Your task to perform on an android device: turn on improve location accuracy Image 0: 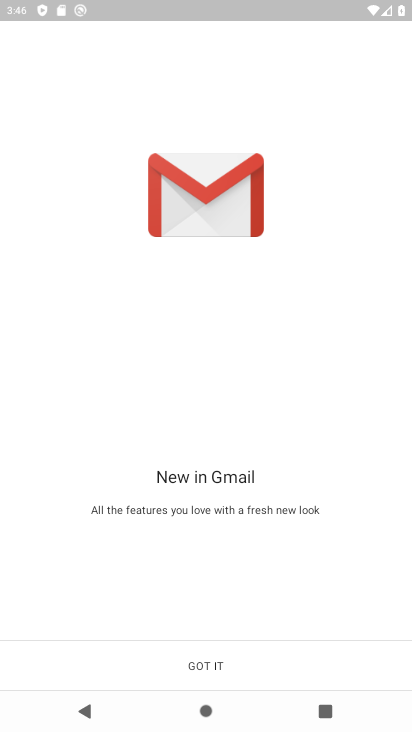
Step 0: drag from (211, 540) to (219, 350)
Your task to perform on an android device: turn on improve location accuracy Image 1: 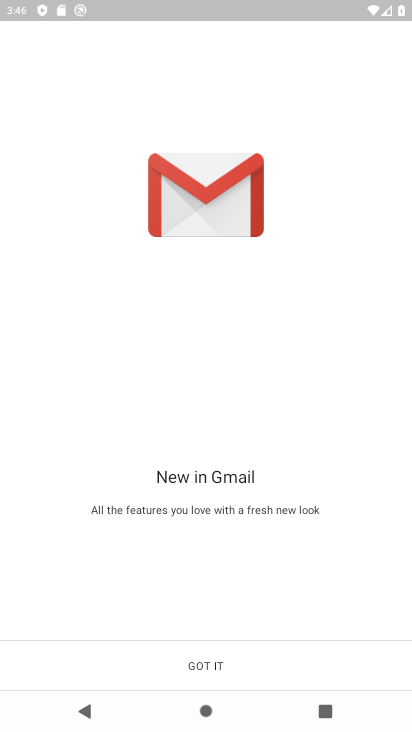
Step 1: click (210, 668)
Your task to perform on an android device: turn on improve location accuracy Image 2: 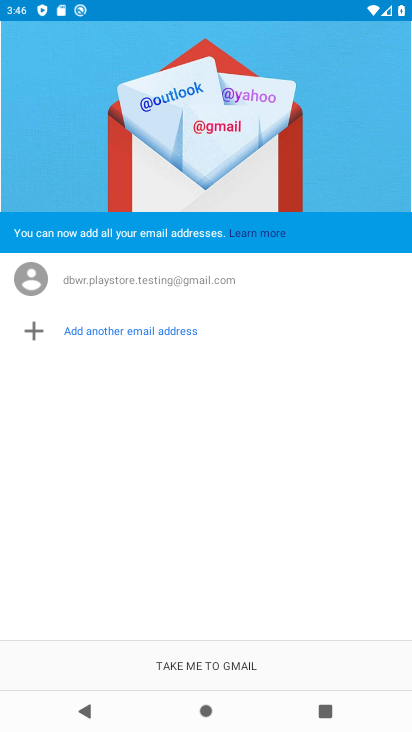
Step 2: press home button
Your task to perform on an android device: turn on improve location accuracy Image 3: 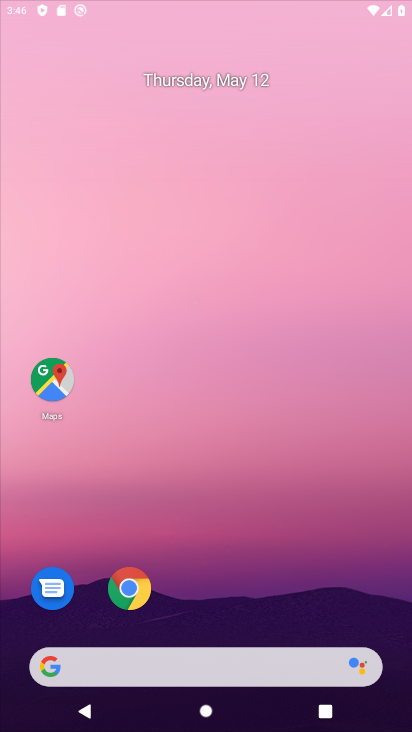
Step 3: drag from (156, 602) to (230, 196)
Your task to perform on an android device: turn on improve location accuracy Image 4: 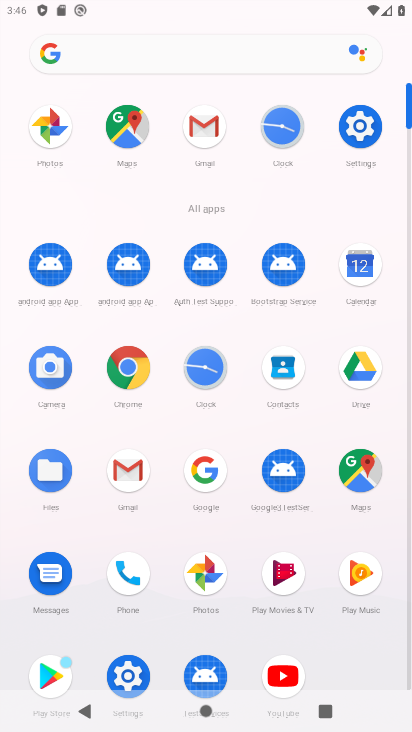
Step 4: click (356, 125)
Your task to perform on an android device: turn on improve location accuracy Image 5: 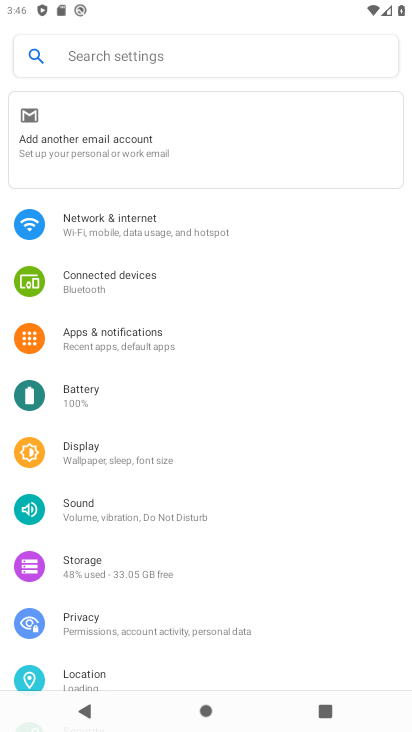
Step 5: drag from (170, 654) to (285, 241)
Your task to perform on an android device: turn on improve location accuracy Image 6: 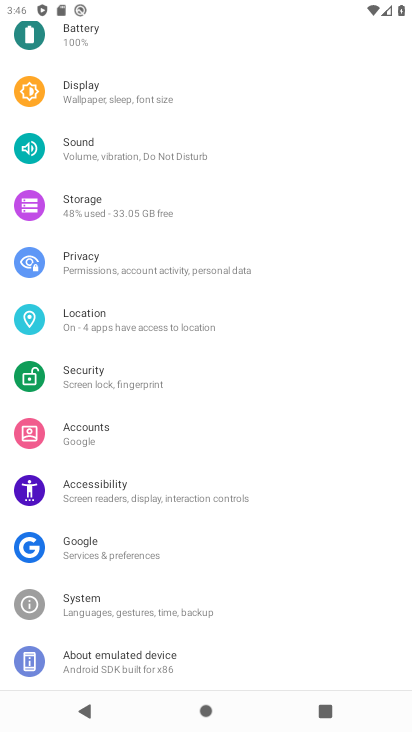
Step 6: drag from (182, 596) to (231, 292)
Your task to perform on an android device: turn on improve location accuracy Image 7: 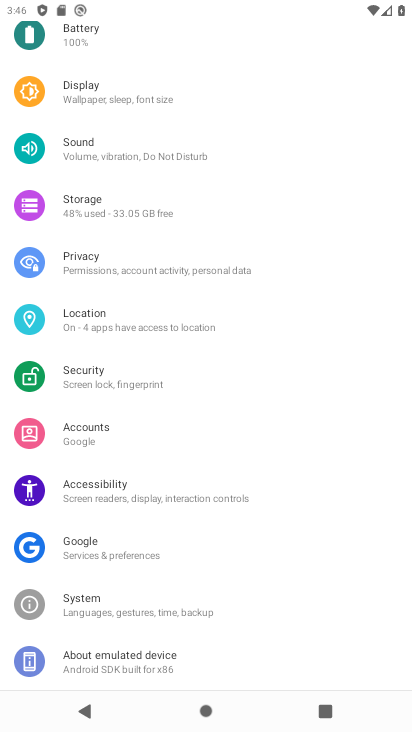
Step 7: click (121, 332)
Your task to perform on an android device: turn on improve location accuracy Image 8: 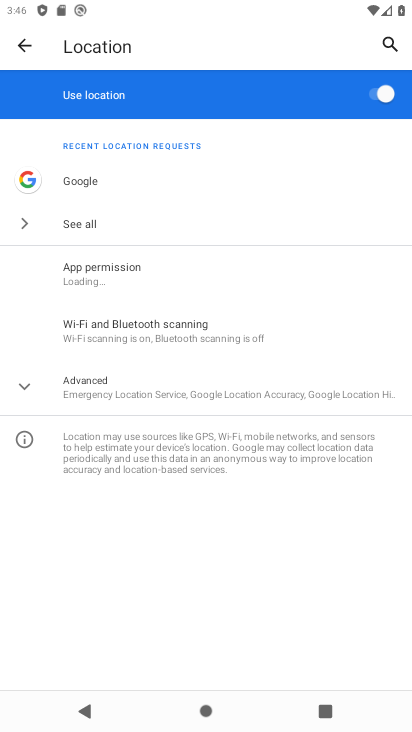
Step 8: click (120, 409)
Your task to perform on an android device: turn on improve location accuracy Image 9: 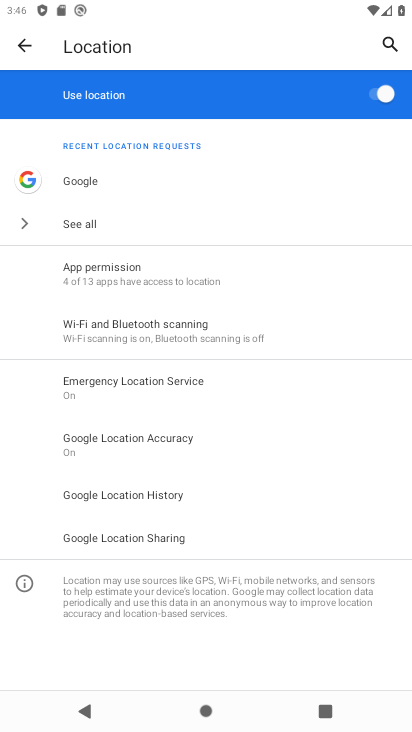
Step 9: click (178, 443)
Your task to perform on an android device: turn on improve location accuracy Image 10: 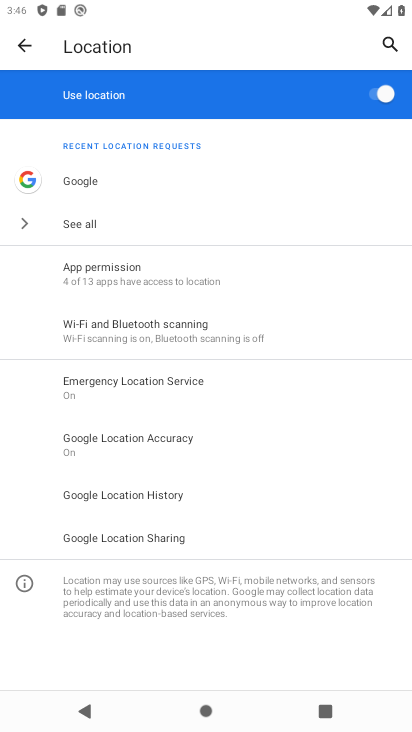
Step 10: click (178, 443)
Your task to perform on an android device: turn on improve location accuracy Image 11: 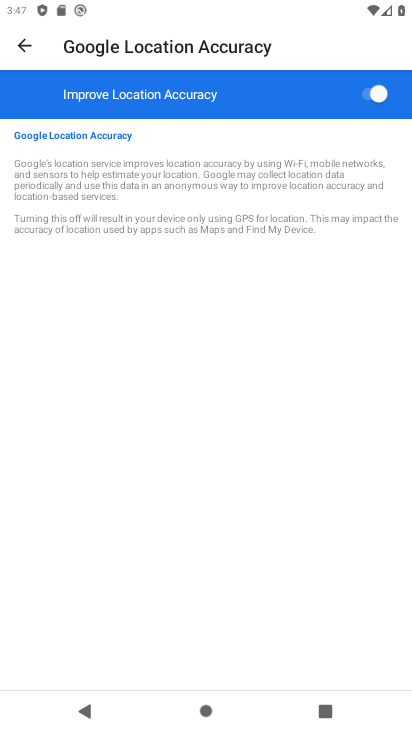
Step 11: task complete